Your task to perform on an android device: turn off smart reply in the gmail app Image 0: 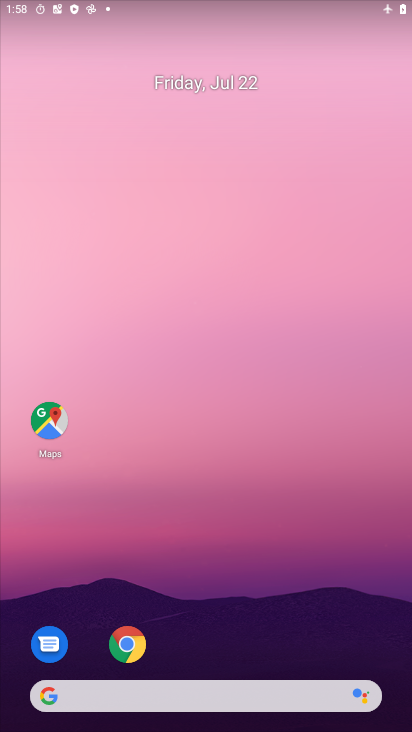
Step 0: drag from (167, 660) to (135, 112)
Your task to perform on an android device: turn off smart reply in the gmail app Image 1: 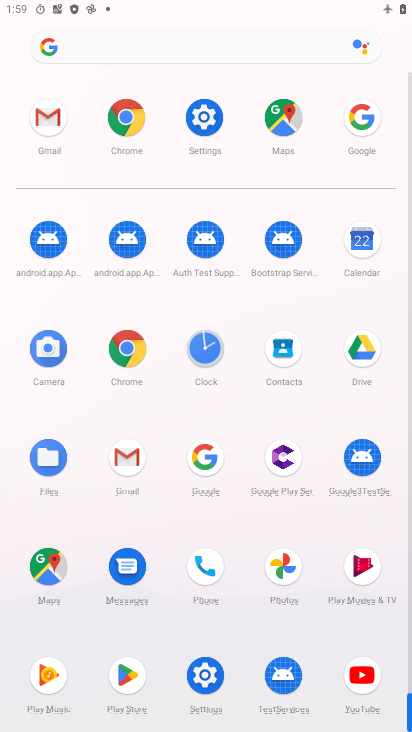
Step 1: click (137, 469)
Your task to perform on an android device: turn off smart reply in the gmail app Image 2: 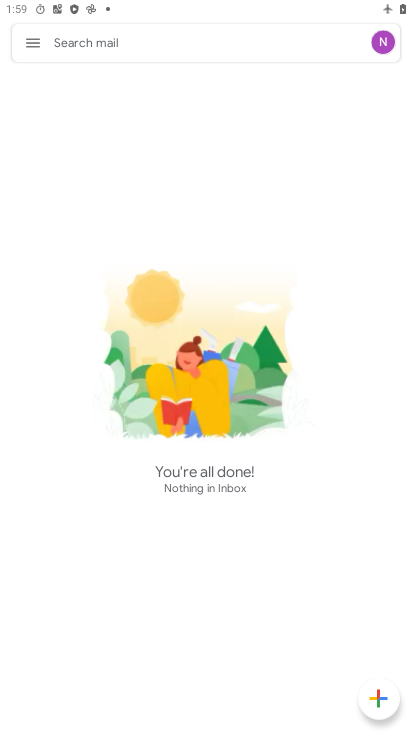
Step 2: click (32, 54)
Your task to perform on an android device: turn off smart reply in the gmail app Image 3: 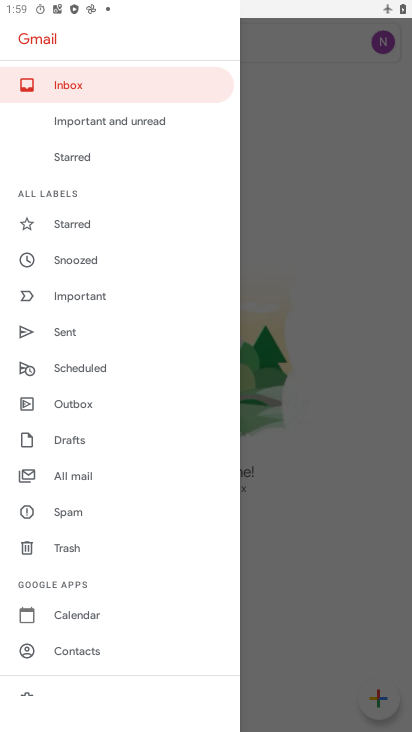
Step 3: drag from (76, 623) to (105, 307)
Your task to perform on an android device: turn off smart reply in the gmail app Image 4: 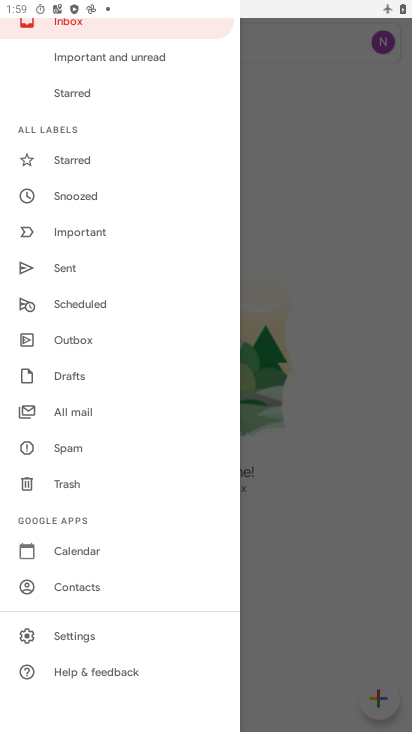
Step 4: click (69, 643)
Your task to perform on an android device: turn off smart reply in the gmail app Image 5: 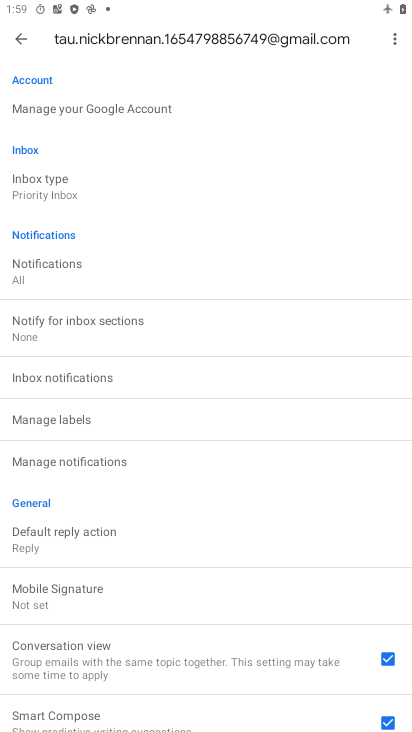
Step 5: task complete